Your task to perform on an android device: Show me the alarms in the clock app Image 0: 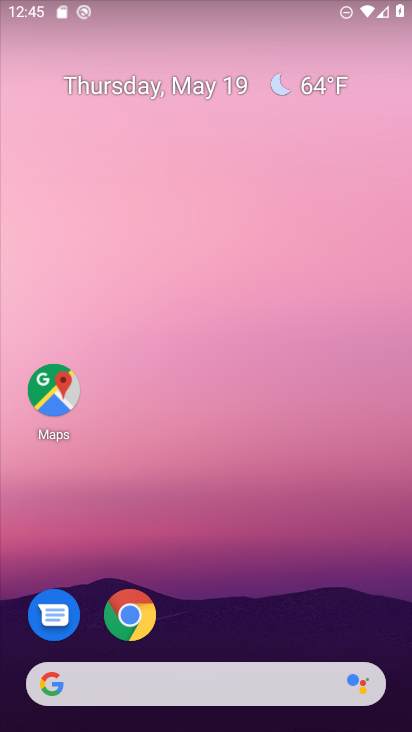
Step 0: drag from (338, 717) to (387, 293)
Your task to perform on an android device: Show me the alarms in the clock app Image 1: 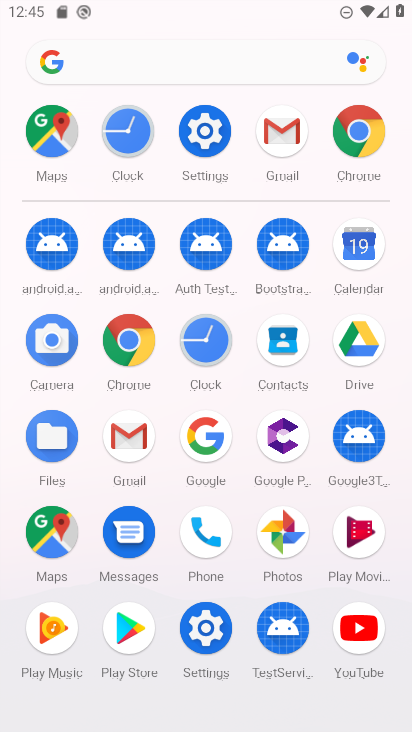
Step 1: click (216, 336)
Your task to perform on an android device: Show me the alarms in the clock app Image 2: 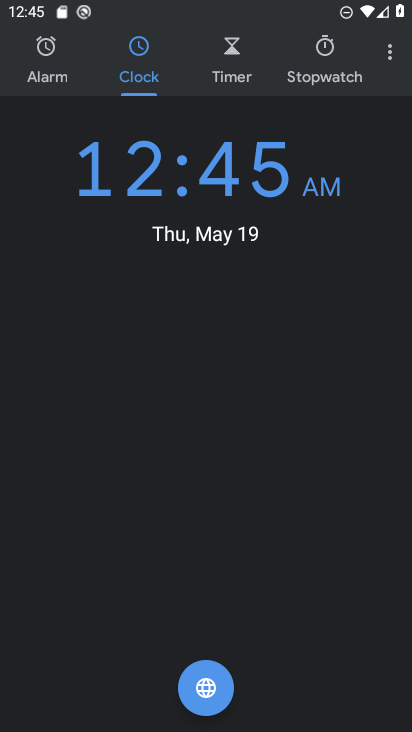
Step 2: click (63, 71)
Your task to perform on an android device: Show me the alarms in the clock app Image 3: 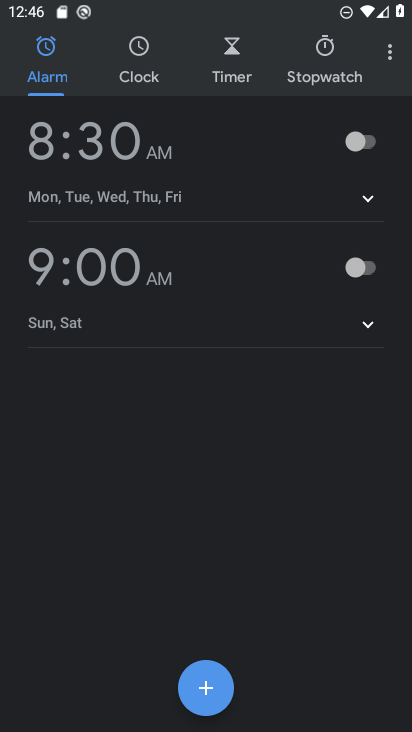
Step 3: task complete